Your task to perform on an android device: change notification settings in the gmail app Image 0: 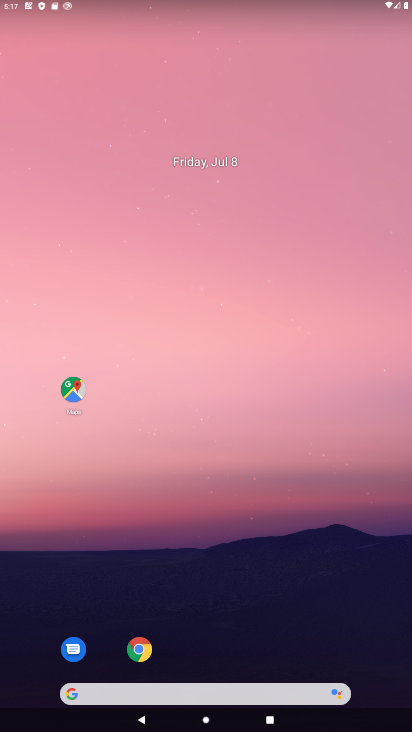
Step 0: drag from (275, 573) to (304, 11)
Your task to perform on an android device: change notification settings in the gmail app Image 1: 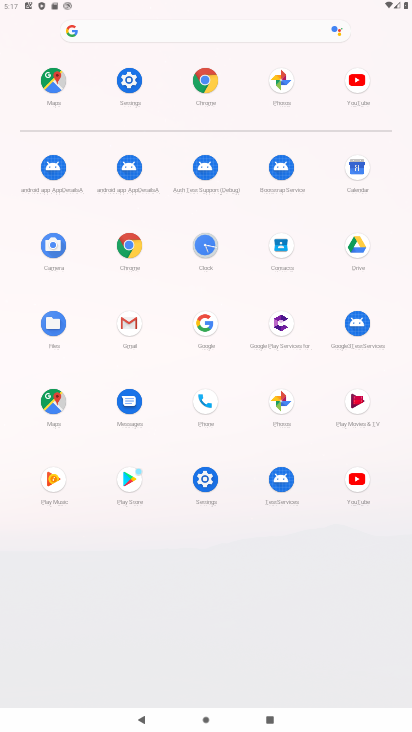
Step 1: click (129, 317)
Your task to perform on an android device: change notification settings in the gmail app Image 2: 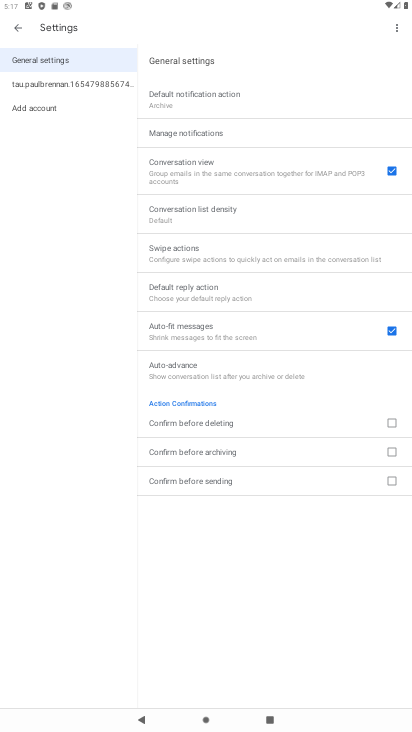
Step 2: click (62, 87)
Your task to perform on an android device: change notification settings in the gmail app Image 3: 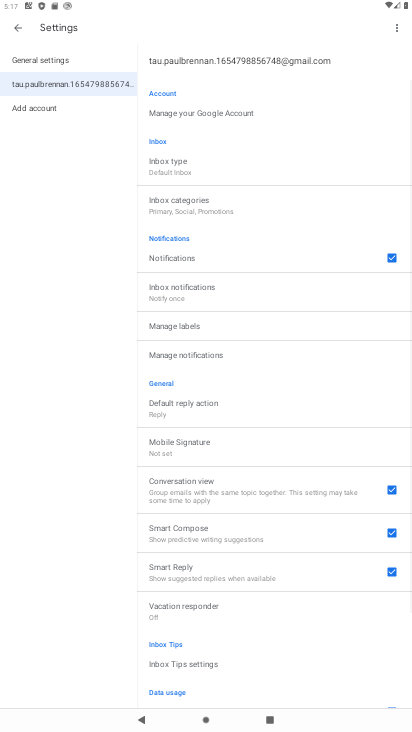
Step 3: click (200, 365)
Your task to perform on an android device: change notification settings in the gmail app Image 4: 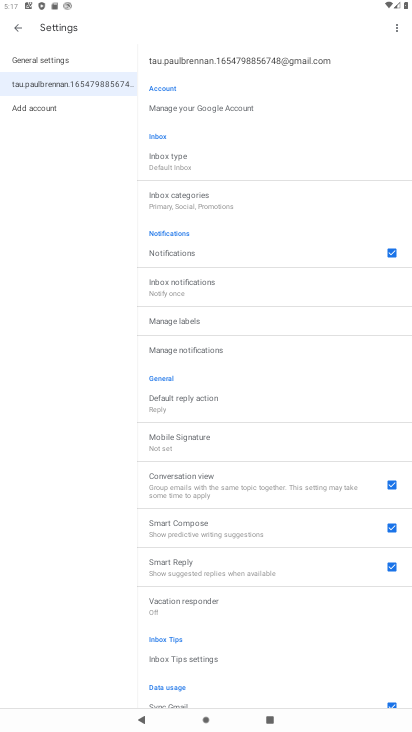
Step 4: click (195, 351)
Your task to perform on an android device: change notification settings in the gmail app Image 5: 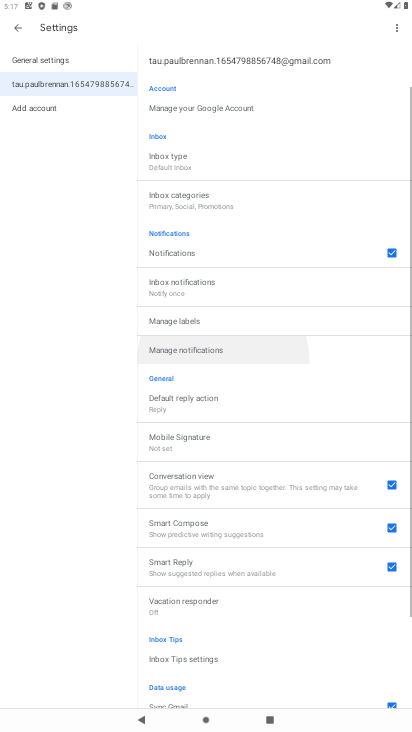
Step 5: click (195, 351)
Your task to perform on an android device: change notification settings in the gmail app Image 6: 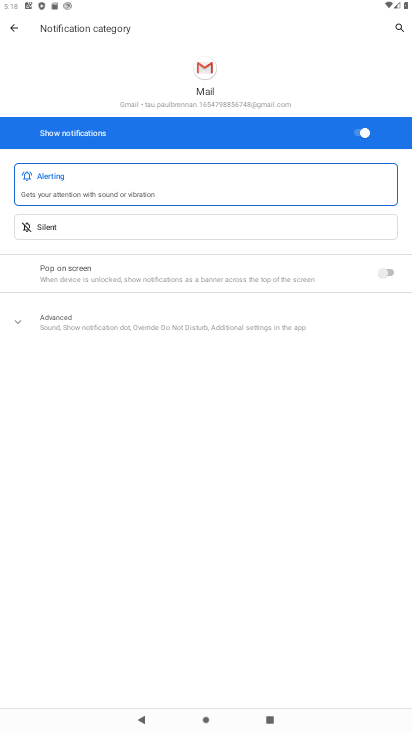
Step 6: click (365, 130)
Your task to perform on an android device: change notification settings in the gmail app Image 7: 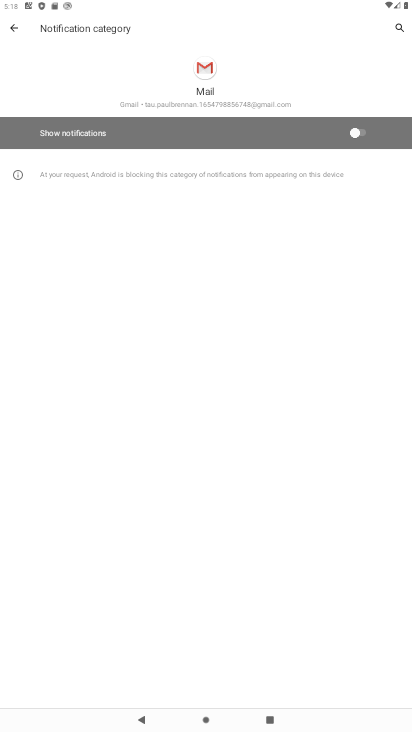
Step 7: task complete